Your task to perform on an android device: see sites visited before in the chrome app Image 0: 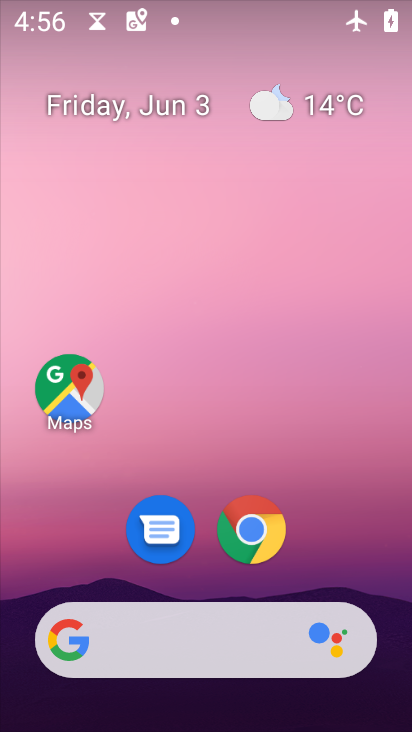
Step 0: drag from (333, 472) to (241, 9)
Your task to perform on an android device: see sites visited before in the chrome app Image 1: 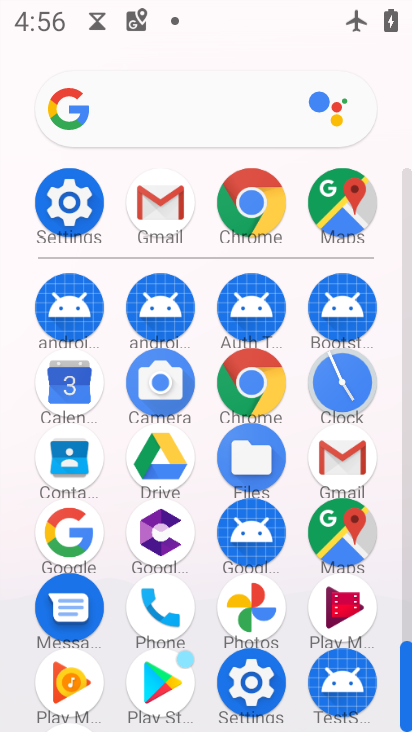
Step 1: click (262, 201)
Your task to perform on an android device: see sites visited before in the chrome app Image 2: 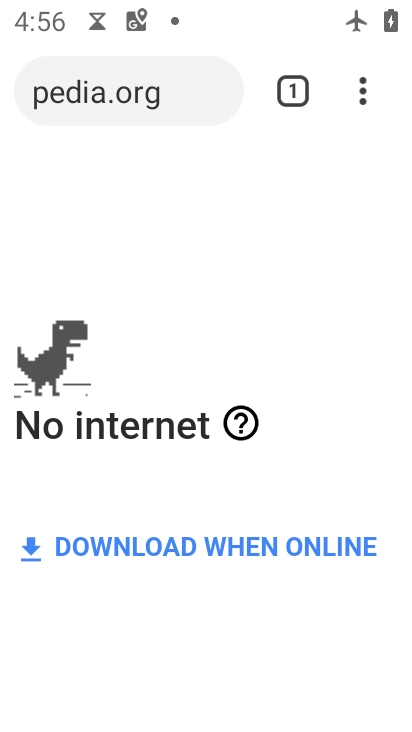
Step 2: drag from (361, 99) to (114, 434)
Your task to perform on an android device: see sites visited before in the chrome app Image 3: 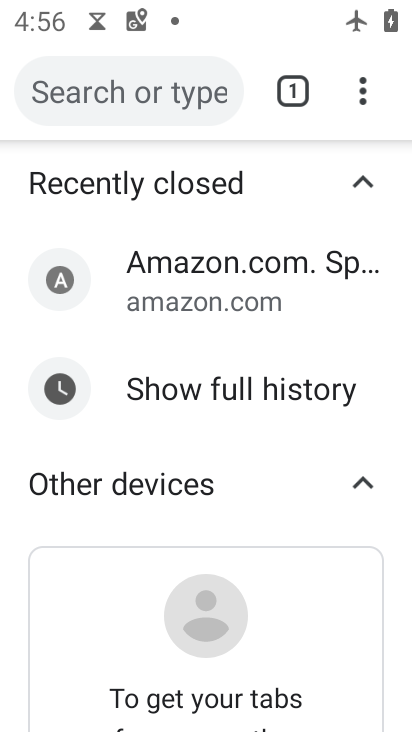
Step 3: drag from (276, 497) to (246, 232)
Your task to perform on an android device: see sites visited before in the chrome app Image 4: 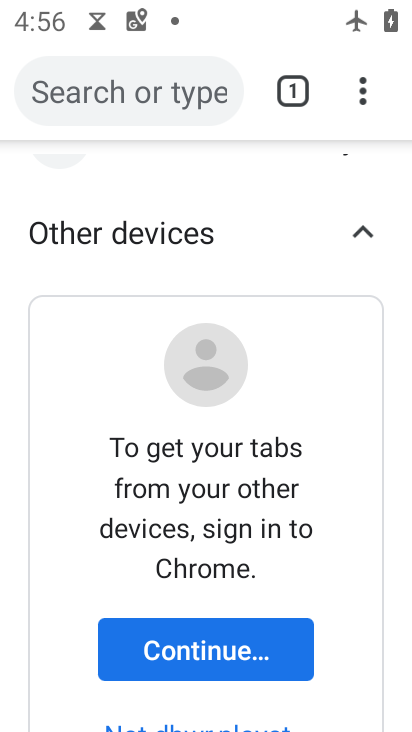
Step 4: click (262, 663)
Your task to perform on an android device: see sites visited before in the chrome app Image 5: 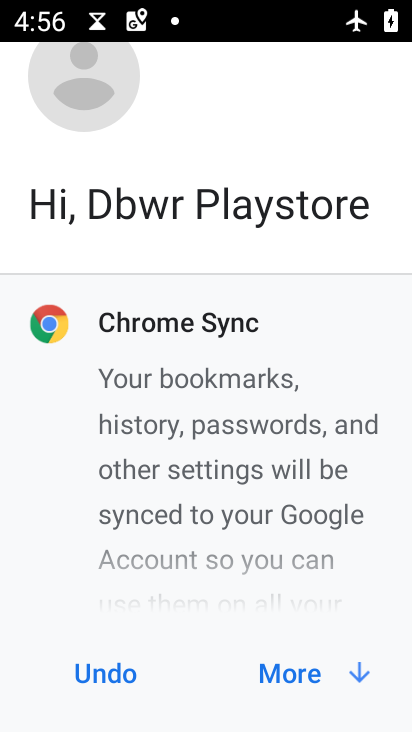
Step 5: click (327, 667)
Your task to perform on an android device: see sites visited before in the chrome app Image 6: 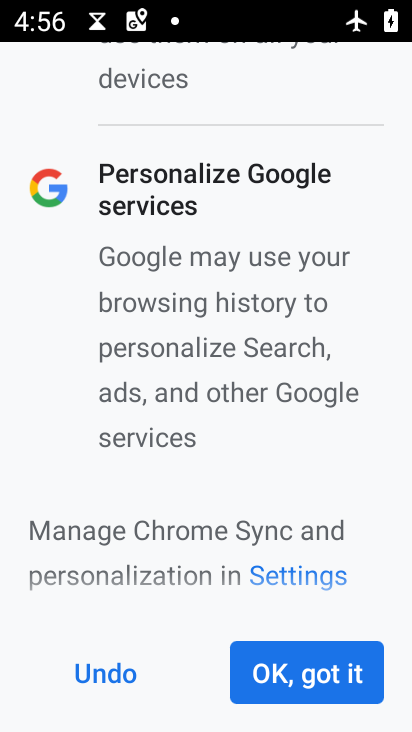
Step 6: click (326, 669)
Your task to perform on an android device: see sites visited before in the chrome app Image 7: 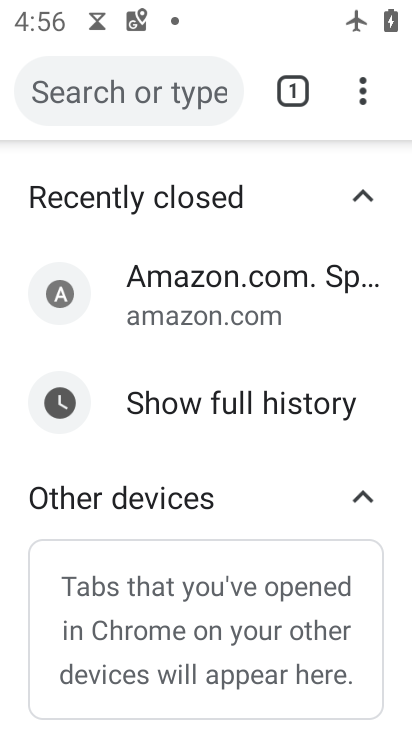
Step 7: task complete